Your task to perform on an android device: Open Maps and search for coffee Image 0: 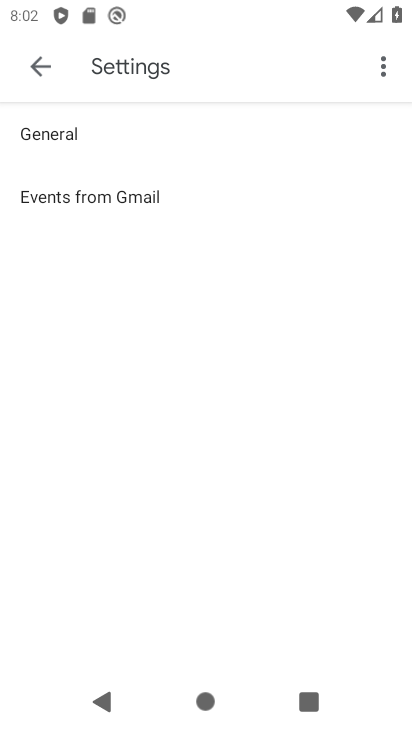
Step 0: press home button
Your task to perform on an android device: Open Maps and search for coffee Image 1: 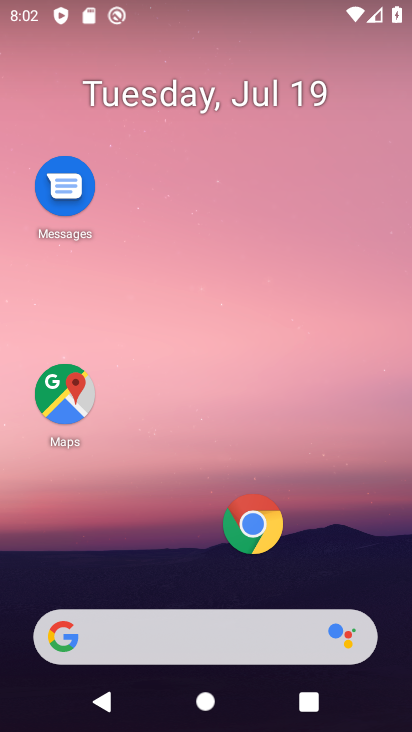
Step 1: click (54, 408)
Your task to perform on an android device: Open Maps and search for coffee Image 2: 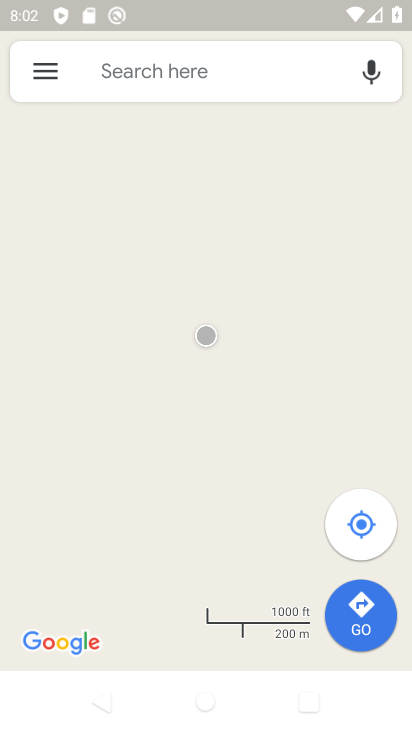
Step 2: click (179, 82)
Your task to perform on an android device: Open Maps and search for coffee Image 3: 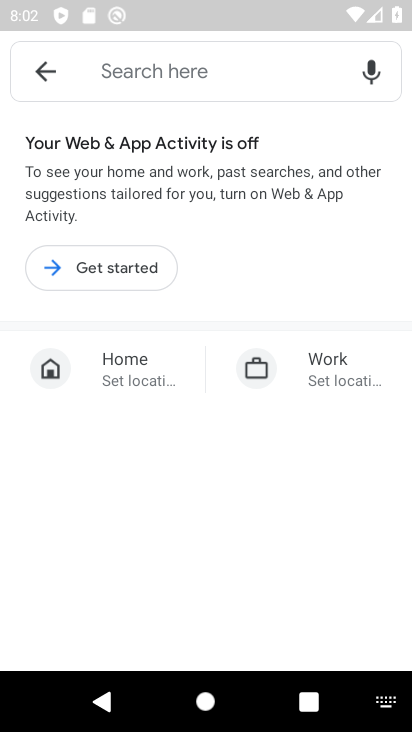
Step 3: click (97, 261)
Your task to perform on an android device: Open Maps and search for coffee Image 4: 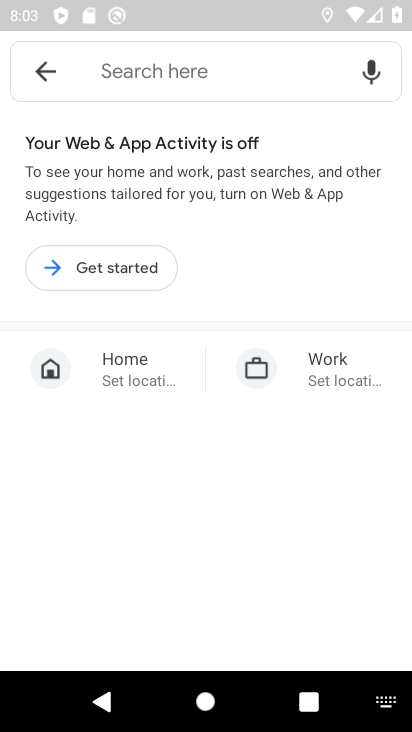
Step 4: click (97, 261)
Your task to perform on an android device: Open Maps and search for coffee Image 5: 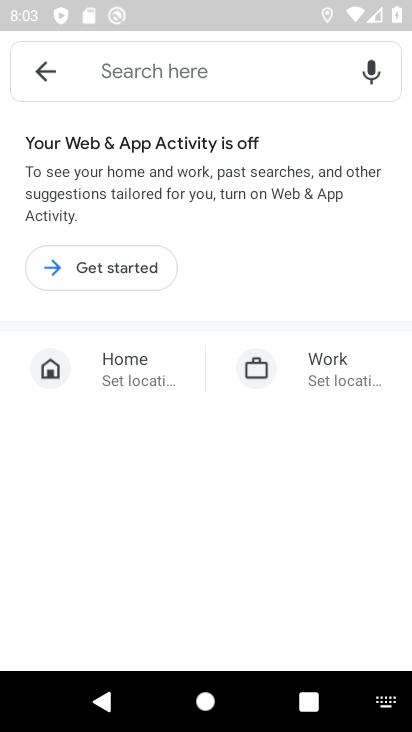
Step 5: click (87, 279)
Your task to perform on an android device: Open Maps and search for coffee Image 6: 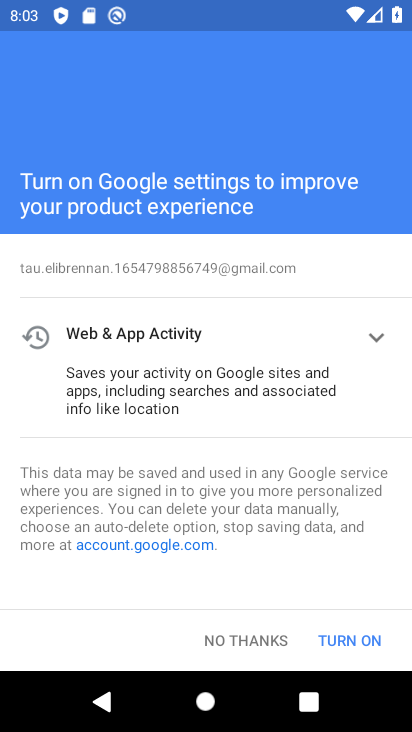
Step 6: click (368, 641)
Your task to perform on an android device: Open Maps and search for coffee Image 7: 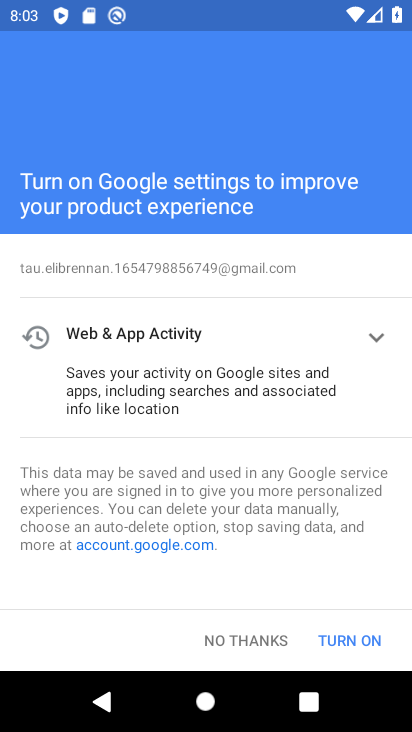
Step 7: click (365, 645)
Your task to perform on an android device: Open Maps and search for coffee Image 8: 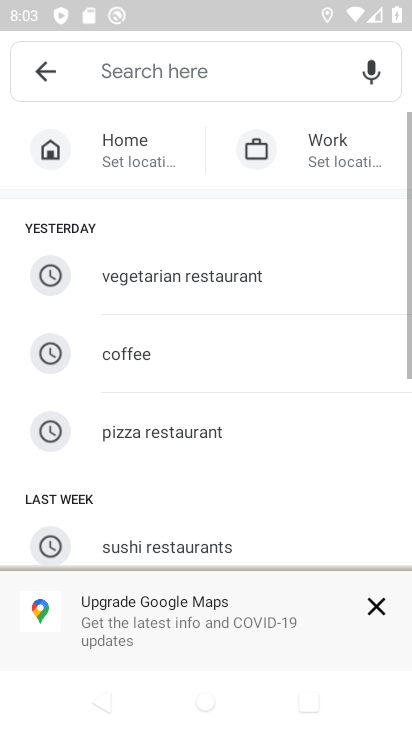
Step 8: click (186, 74)
Your task to perform on an android device: Open Maps and search for coffee Image 9: 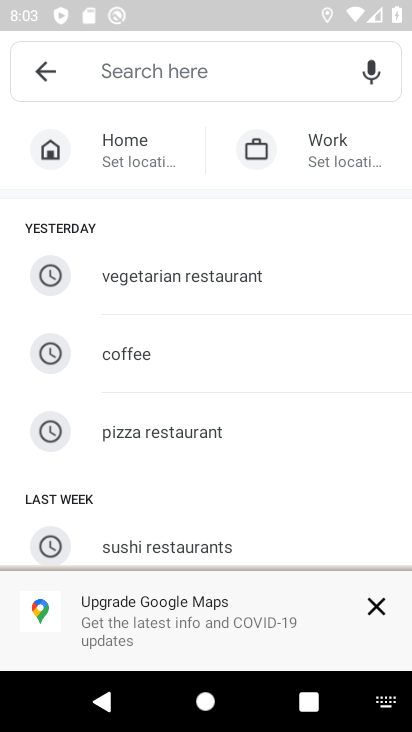
Step 9: click (134, 354)
Your task to perform on an android device: Open Maps and search for coffee Image 10: 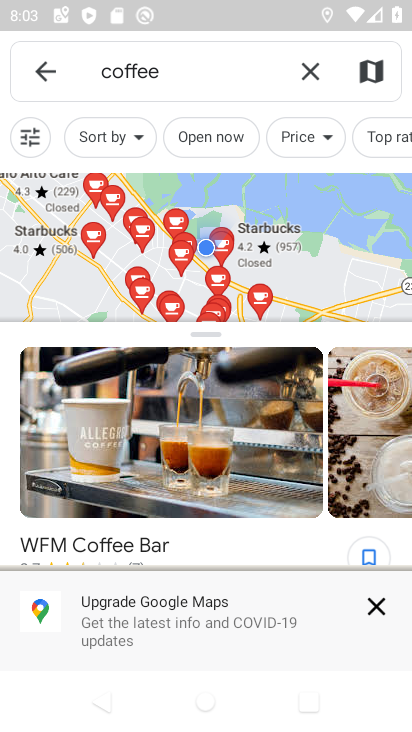
Step 10: task complete